Your task to perform on an android device: change the upload size in google photos Image 0: 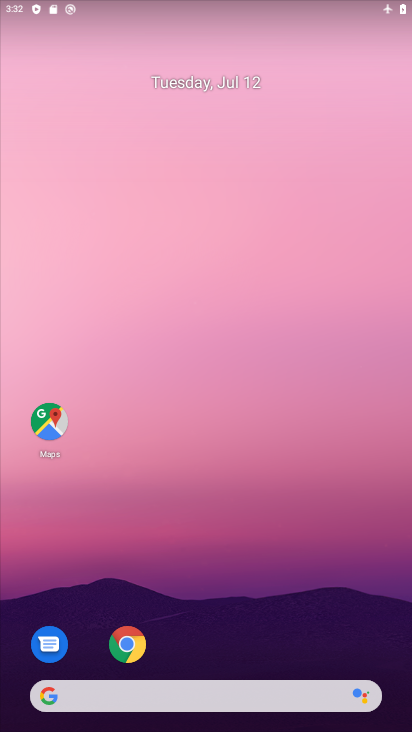
Step 0: drag from (291, 542) to (256, 64)
Your task to perform on an android device: change the upload size in google photos Image 1: 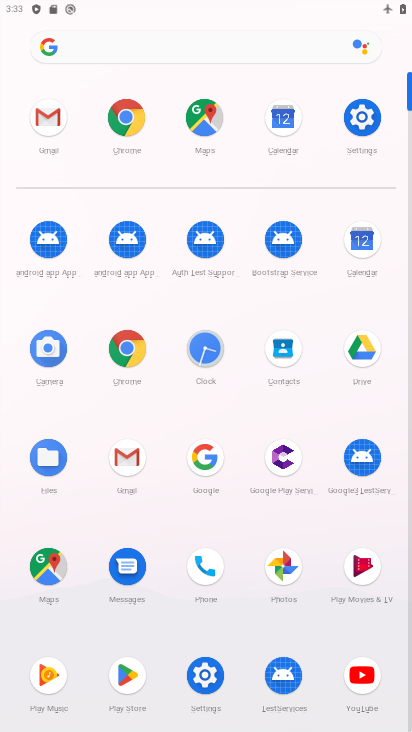
Step 1: click (286, 565)
Your task to perform on an android device: change the upload size in google photos Image 2: 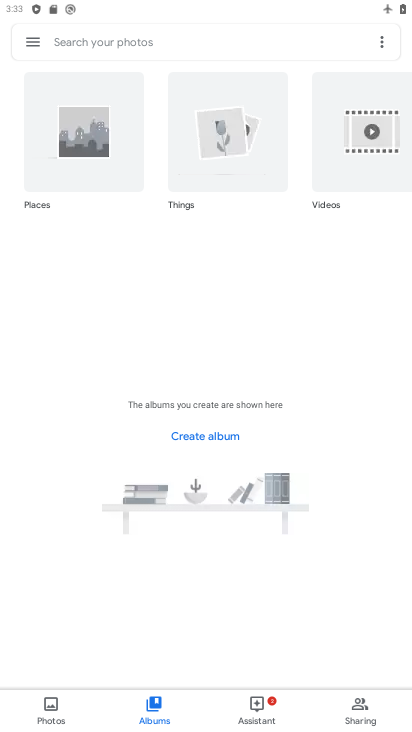
Step 2: click (28, 42)
Your task to perform on an android device: change the upload size in google photos Image 3: 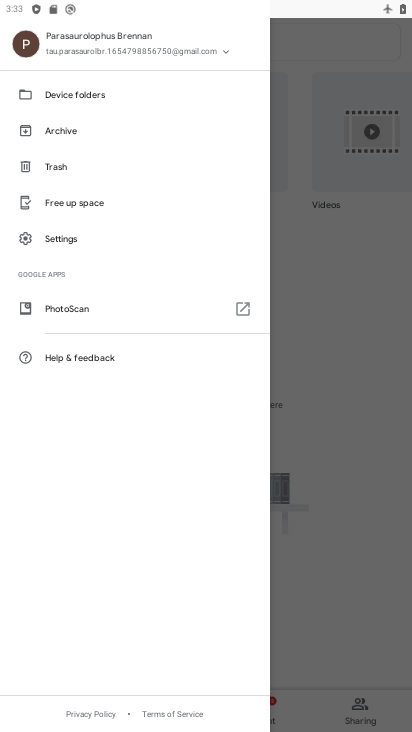
Step 3: click (66, 238)
Your task to perform on an android device: change the upload size in google photos Image 4: 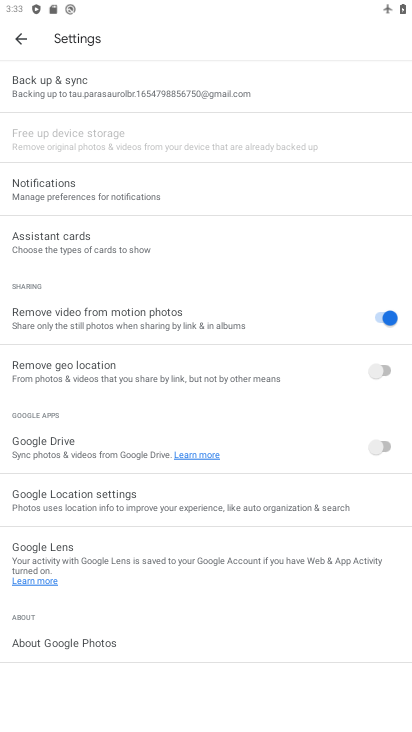
Step 4: click (108, 86)
Your task to perform on an android device: change the upload size in google photos Image 5: 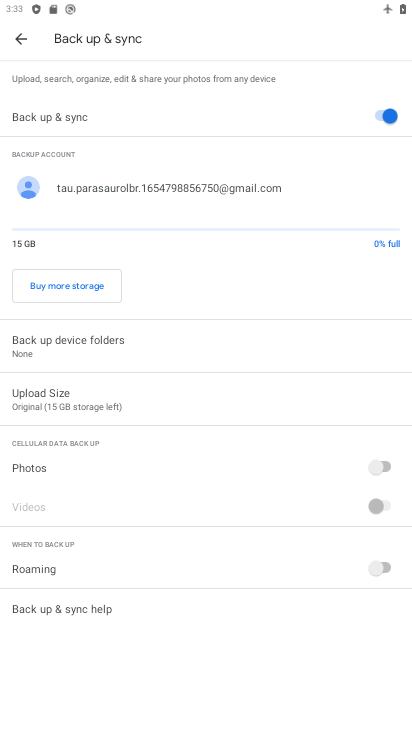
Step 5: click (158, 395)
Your task to perform on an android device: change the upload size in google photos Image 6: 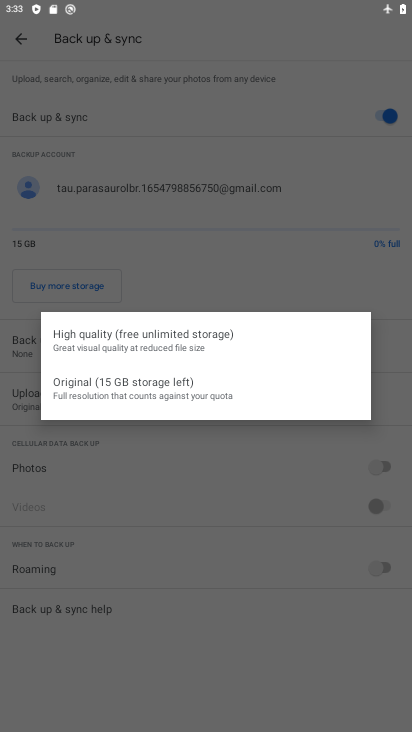
Step 6: click (168, 331)
Your task to perform on an android device: change the upload size in google photos Image 7: 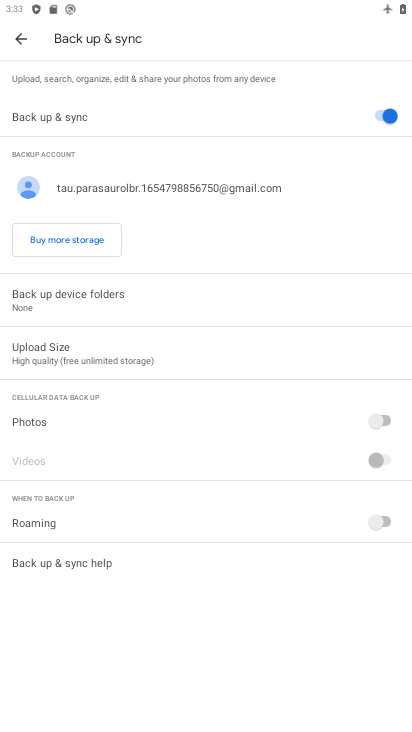
Step 7: task complete